Your task to perform on an android device: What's on my calendar today? Image 0: 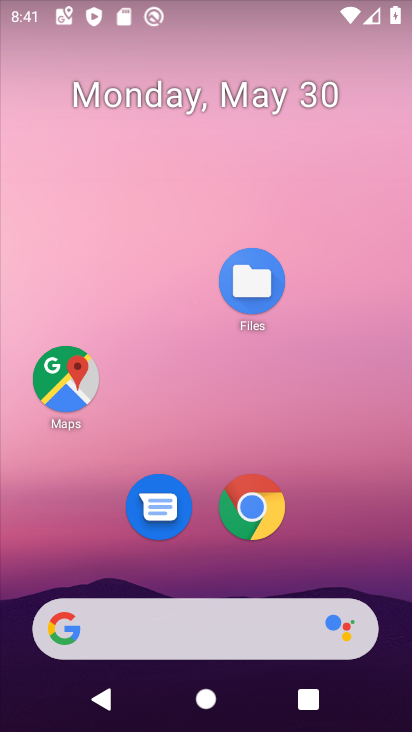
Step 0: drag from (221, 580) to (251, 51)
Your task to perform on an android device: What's on my calendar today? Image 1: 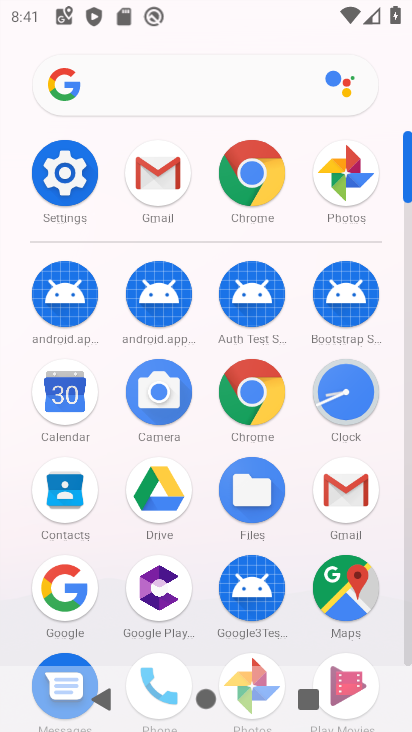
Step 1: click (75, 393)
Your task to perform on an android device: What's on my calendar today? Image 2: 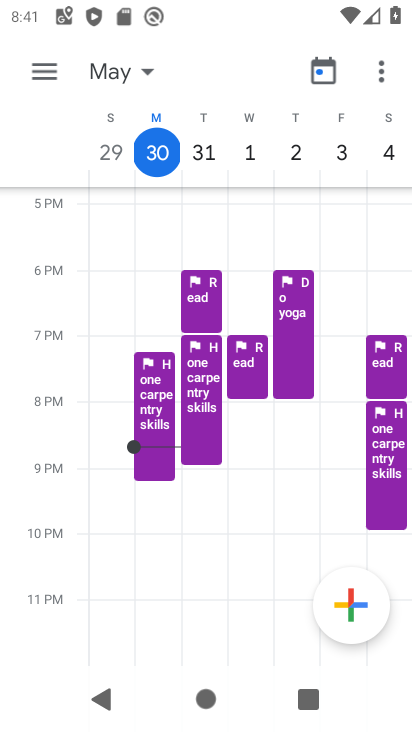
Step 2: drag from (317, 171) to (395, 175)
Your task to perform on an android device: What's on my calendar today? Image 3: 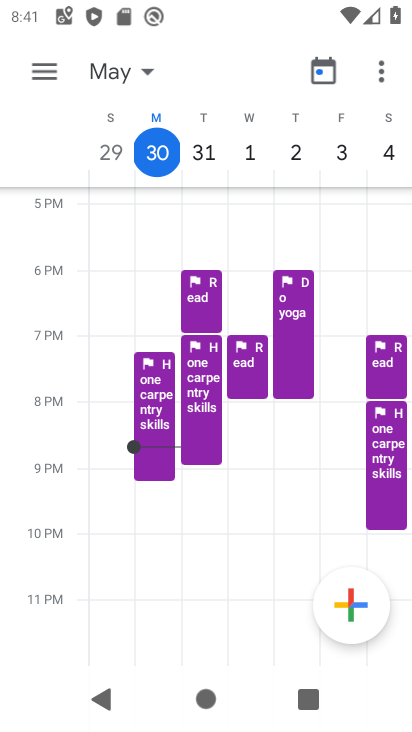
Step 3: click (35, 70)
Your task to perform on an android device: What's on my calendar today? Image 4: 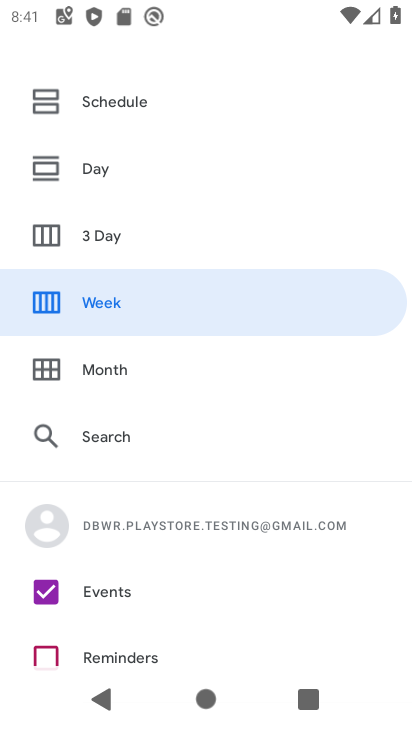
Step 4: click (105, 173)
Your task to perform on an android device: What's on my calendar today? Image 5: 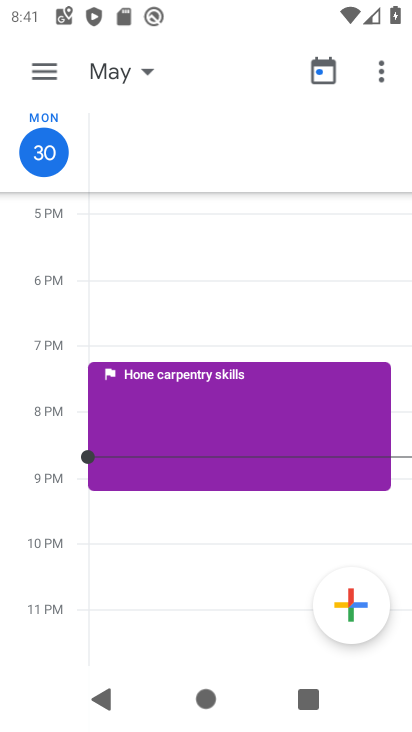
Step 5: task complete